Your task to perform on an android device: Do I have any events tomorrow? Image 0: 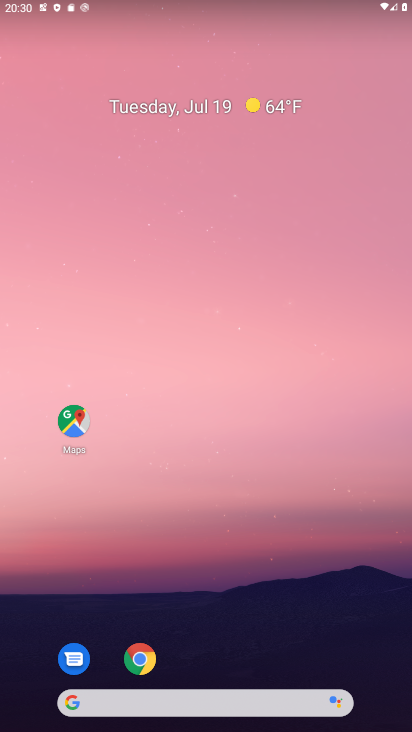
Step 0: click (279, 116)
Your task to perform on an android device: Do I have any events tomorrow? Image 1: 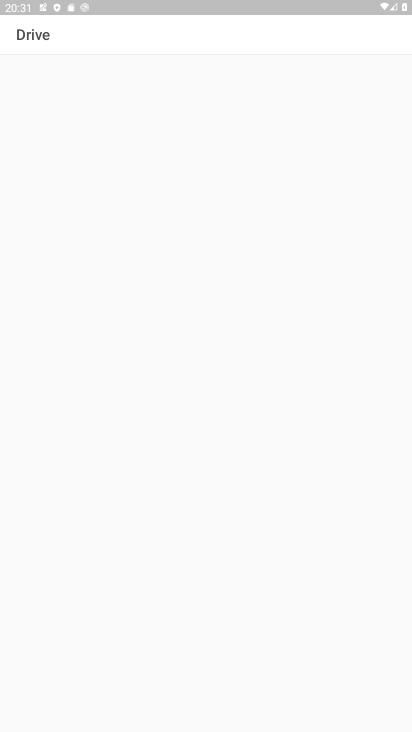
Step 1: press home button
Your task to perform on an android device: Do I have any events tomorrow? Image 2: 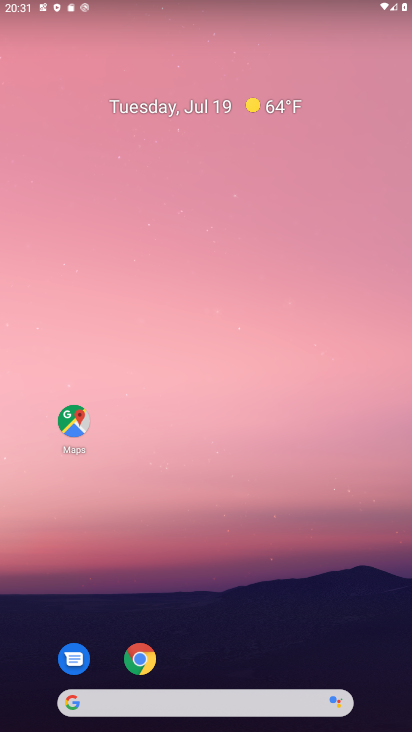
Step 2: click (140, 103)
Your task to perform on an android device: Do I have any events tomorrow? Image 3: 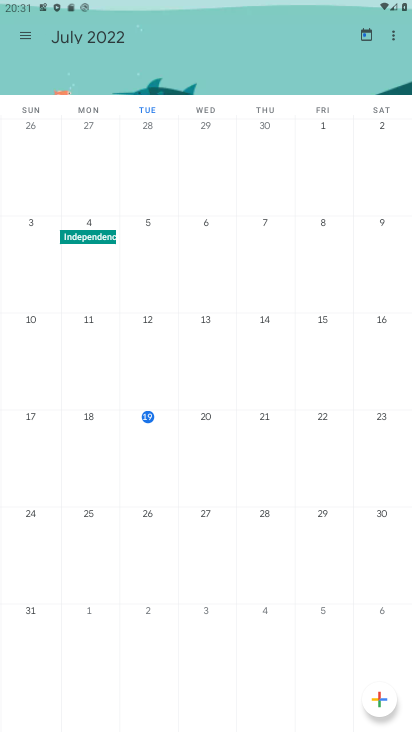
Step 3: click (199, 443)
Your task to perform on an android device: Do I have any events tomorrow? Image 4: 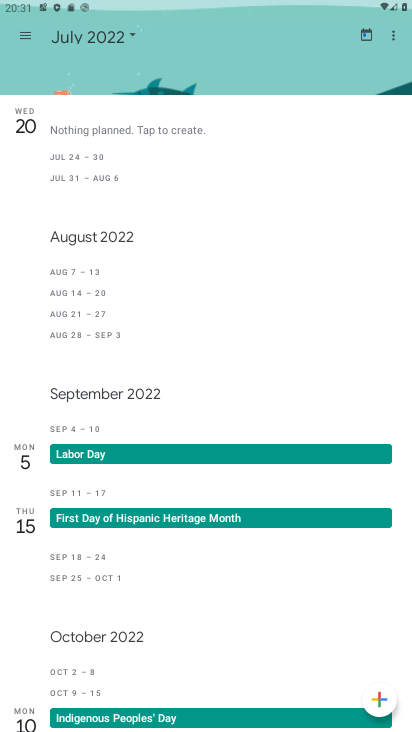
Step 4: task complete